Your task to perform on an android device: open wifi settings Image 0: 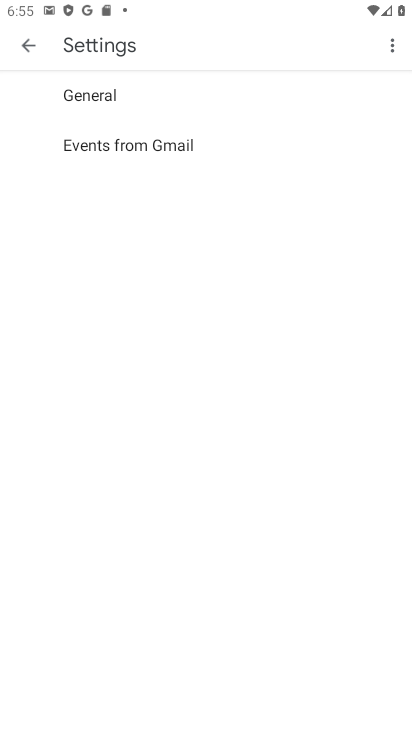
Step 0: press home button
Your task to perform on an android device: open wifi settings Image 1: 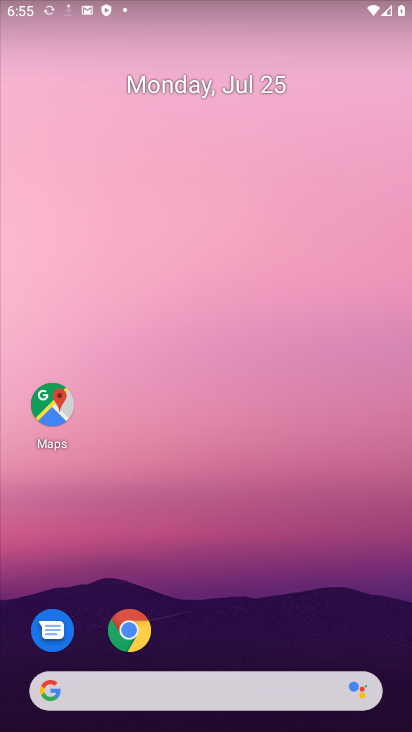
Step 1: drag from (248, 717) to (284, 76)
Your task to perform on an android device: open wifi settings Image 2: 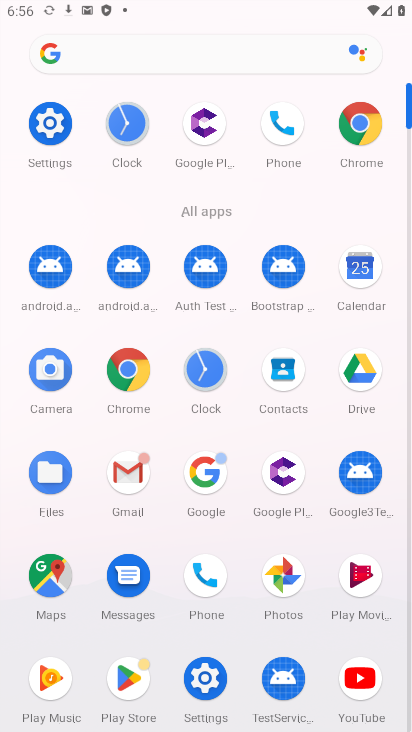
Step 2: drag from (39, 117) to (297, 642)
Your task to perform on an android device: open wifi settings Image 3: 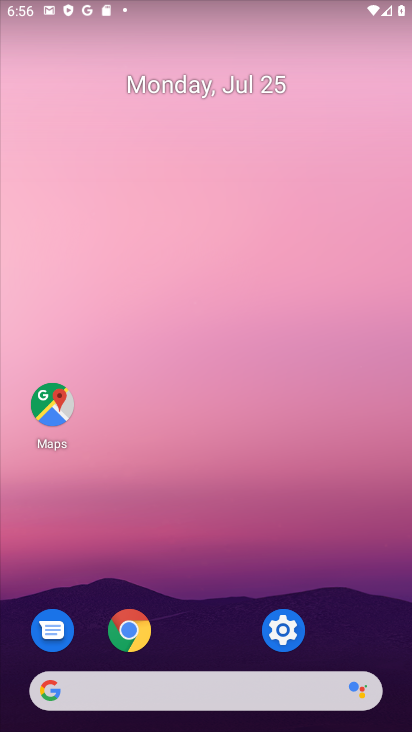
Step 3: click (290, 622)
Your task to perform on an android device: open wifi settings Image 4: 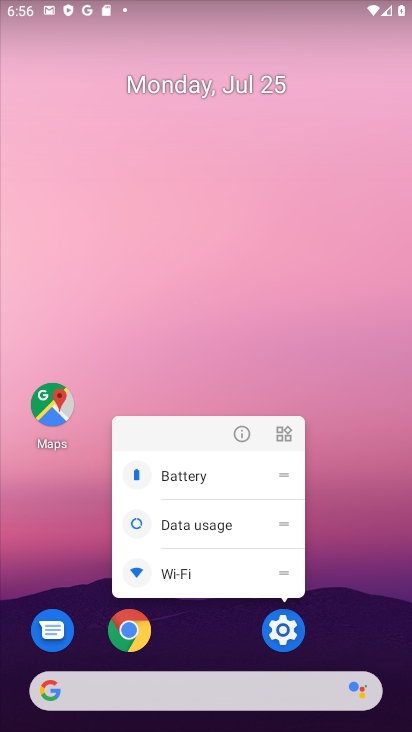
Step 4: click (283, 642)
Your task to perform on an android device: open wifi settings Image 5: 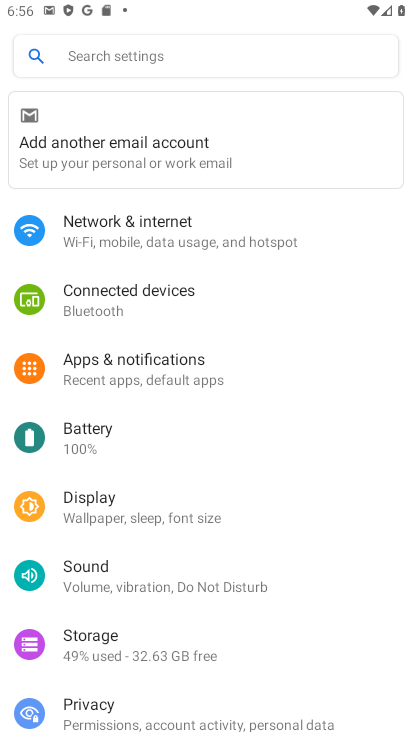
Step 5: click (132, 230)
Your task to perform on an android device: open wifi settings Image 6: 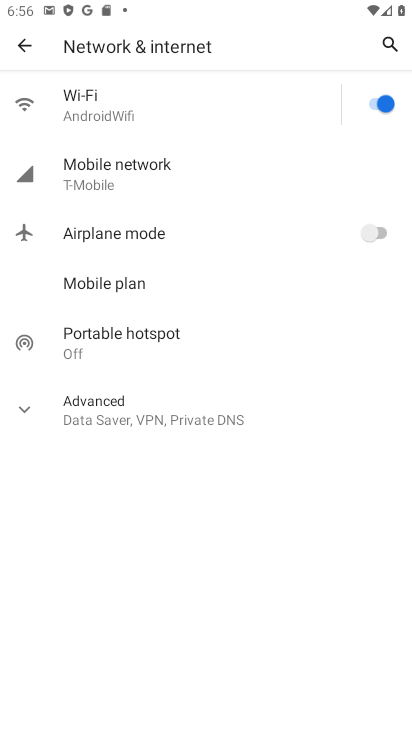
Step 6: click (167, 98)
Your task to perform on an android device: open wifi settings Image 7: 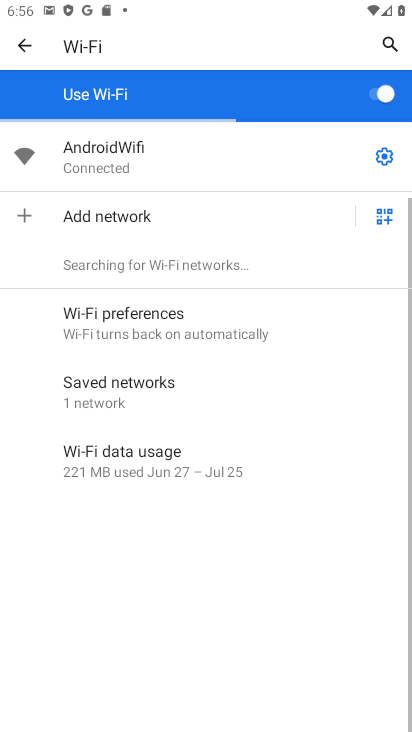
Step 7: task complete